Your task to perform on an android device: turn pop-ups on in chrome Image 0: 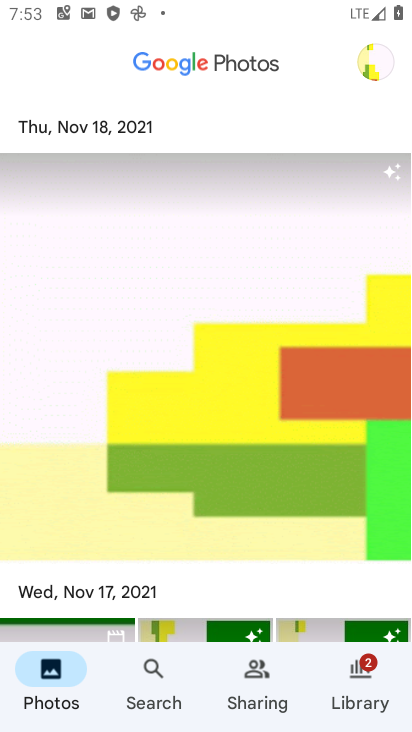
Step 0: press home button
Your task to perform on an android device: turn pop-ups on in chrome Image 1: 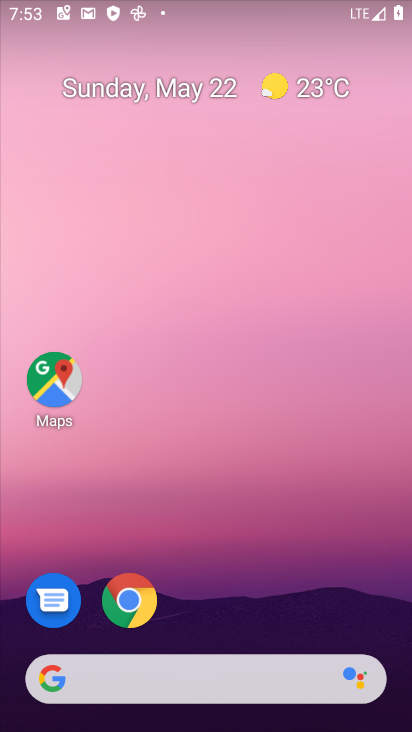
Step 1: drag from (362, 610) to (293, 69)
Your task to perform on an android device: turn pop-ups on in chrome Image 2: 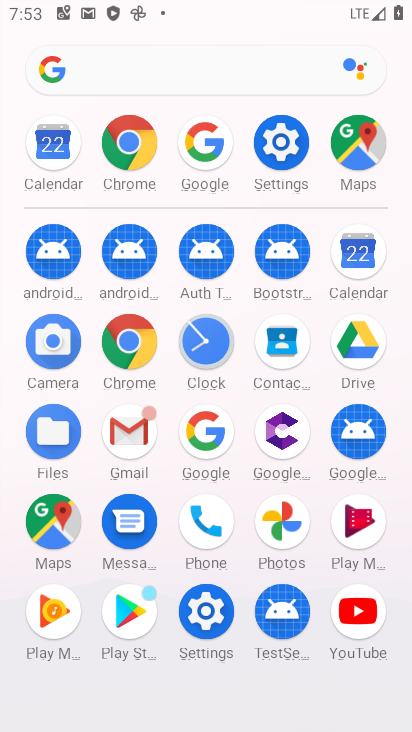
Step 2: click (131, 336)
Your task to perform on an android device: turn pop-ups on in chrome Image 3: 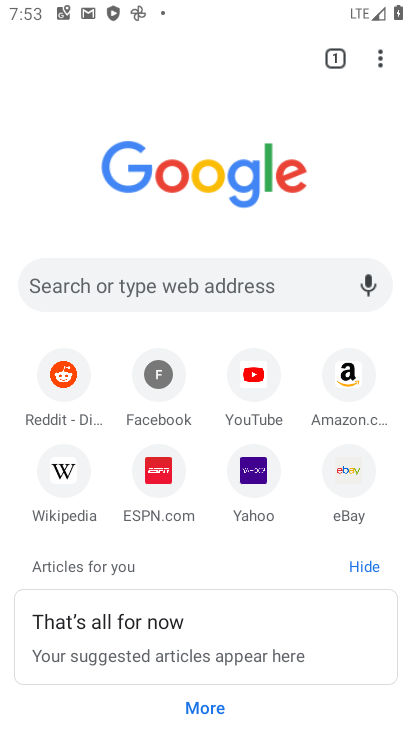
Step 3: click (381, 48)
Your task to perform on an android device: turn pop-ups on in chrome Image 4: 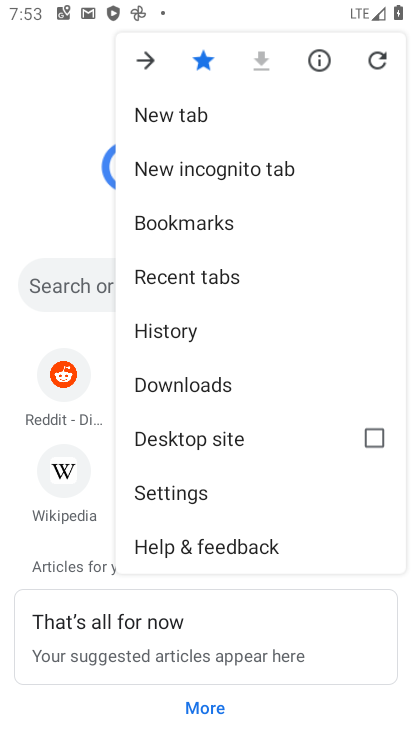
Step 4: click (185, 491)
Your task to perform on an android device: turn pop-ups on in chrome Image 5: 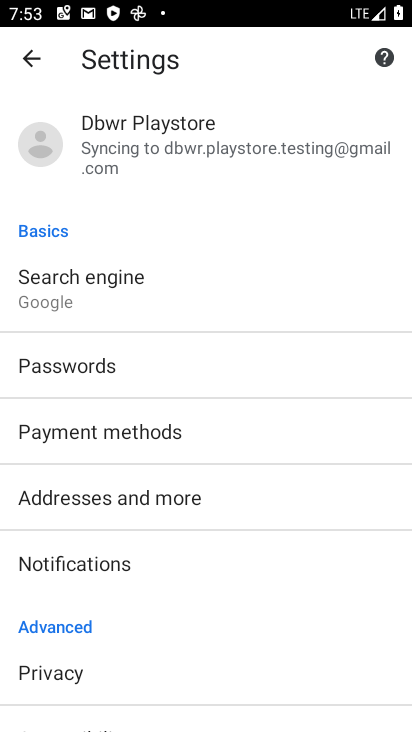
Step 5: drag from (170, 690) to (168, 393)
Your task to perform on an android device: turn pop-ups on in chrome Image 6: 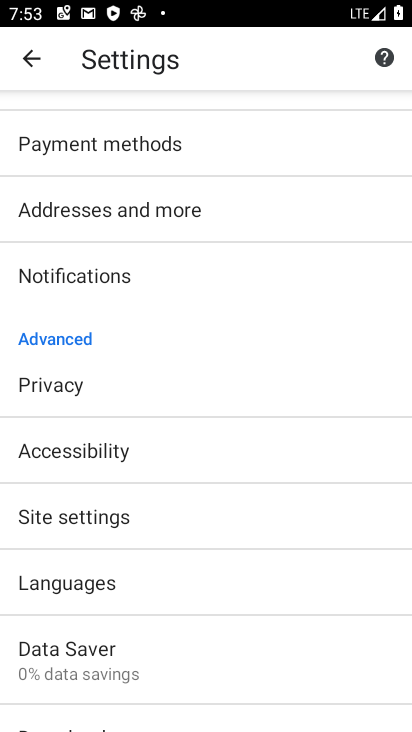
Step 6: click (156, 519)
Your task to perform on an android device: turn pop-ups on in chrome Image 7: 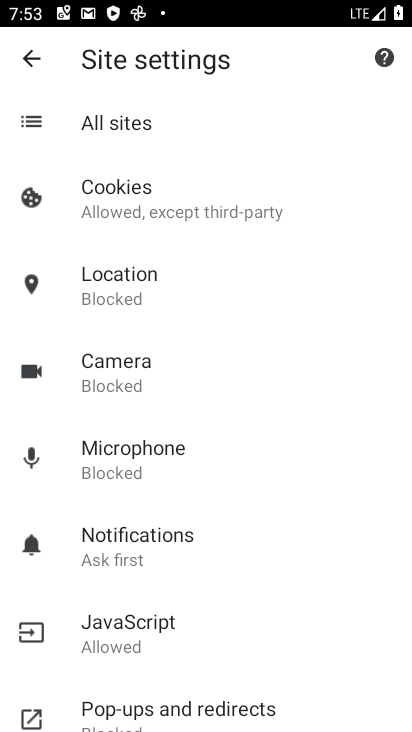
Step 7: click (181, 725)
Your task to perform on an android device: turn pop-ups on in chrome Image 8: 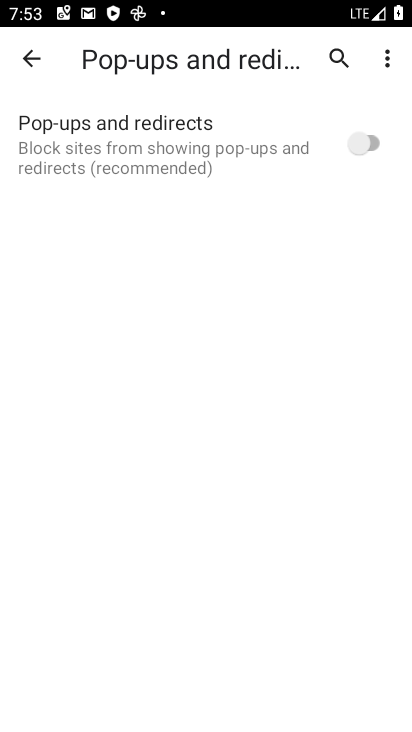
Step 8: click (375, 150)
Your task to perform on an android device: turn pop-ups on in chrome Image 9: 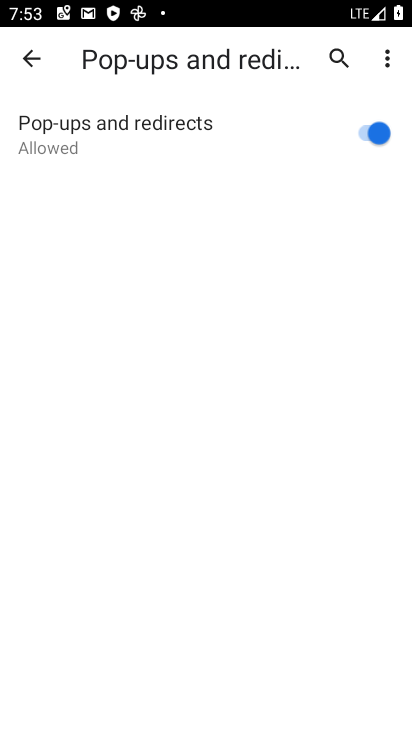
Step 9: task complete